Your task to perform on an android device: change keyboard looks Image 0: 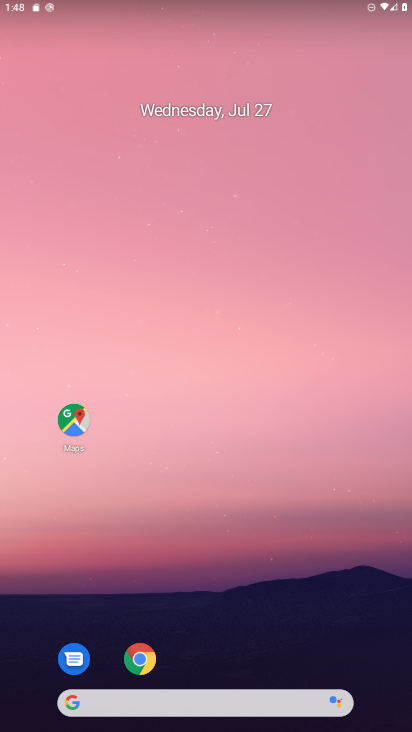
Step 0: drag from (314, 636) to (301, 84)
Your task to perform on an android device: change keyboard looks Image 1: 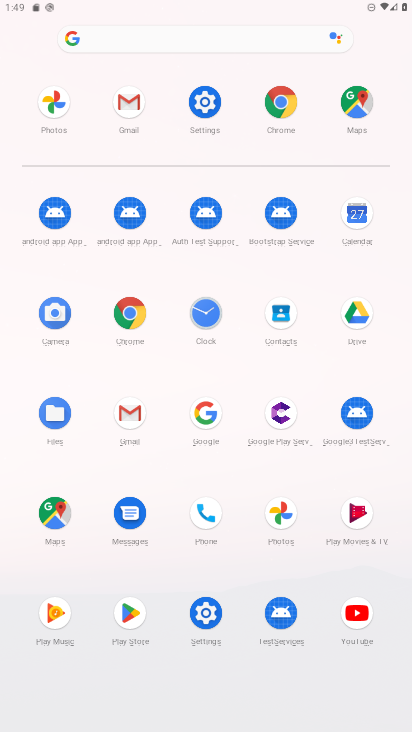
Step 1: click (214, 95)
Your task to perform on an android device: change keyboard looks Image 2: 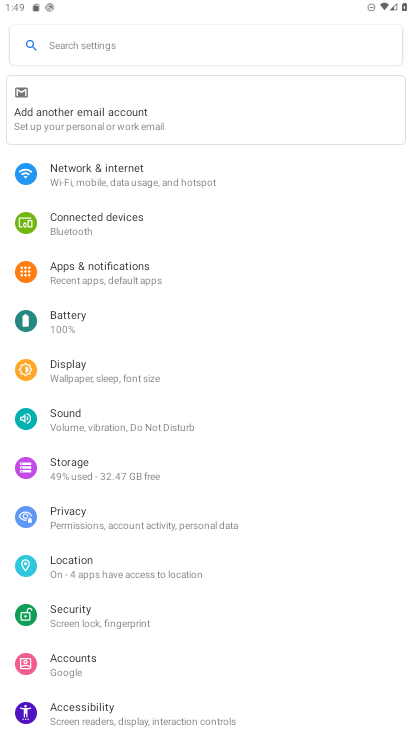
Step 2: drag from (175, 680) to (209, 216)
Your task to perform on an android device: change keyboard looks Image 3: 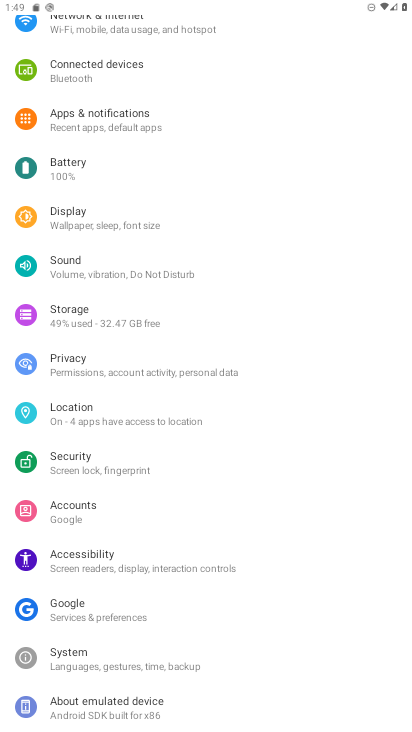
Step 3: click (74, 649)
Your task to perform on an android device: change keyboard looks Image 4: 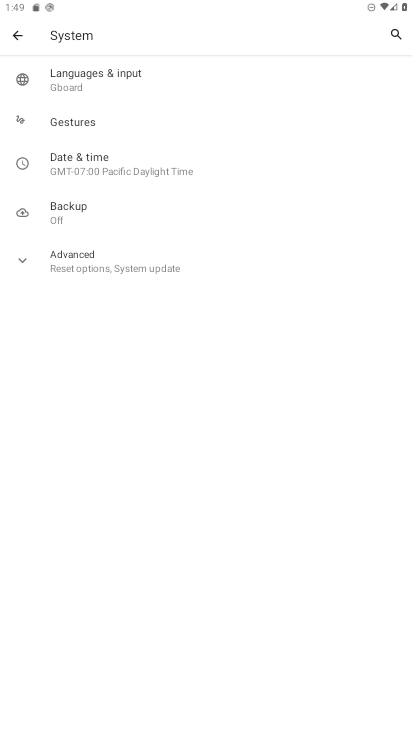
Step 4: click (109, 72)
Your task to perform on an android device: change keyboard looks Image 5: 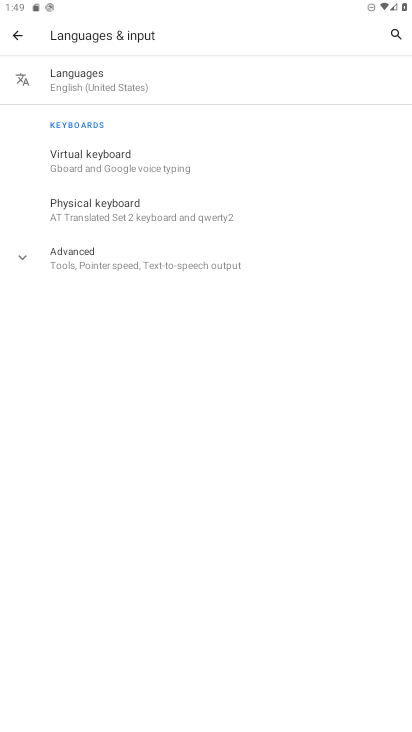
Step 5: click (74, 159)
Your task to perform on an android device: change keyboard looks Image 6: 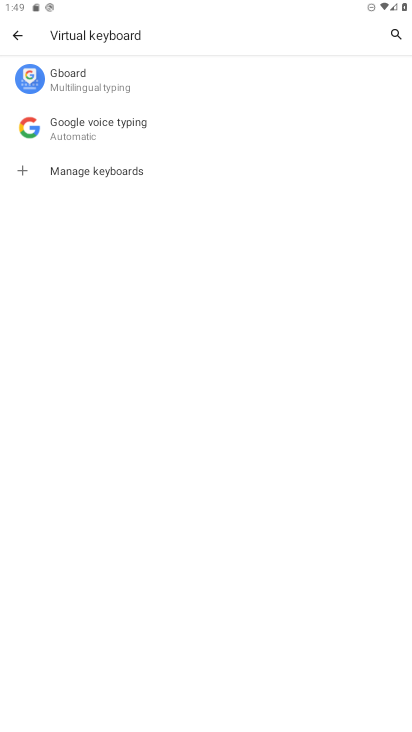
Step 6: click (93, 72)
Your task to perform on an android device: change keyboard looks Image 7: 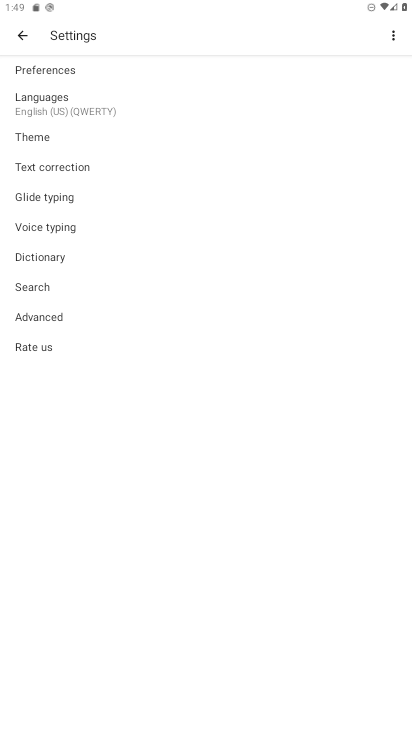
Step 7: click (49, 136)
Your task to perform on an android device: change keyboard looks Image 8: 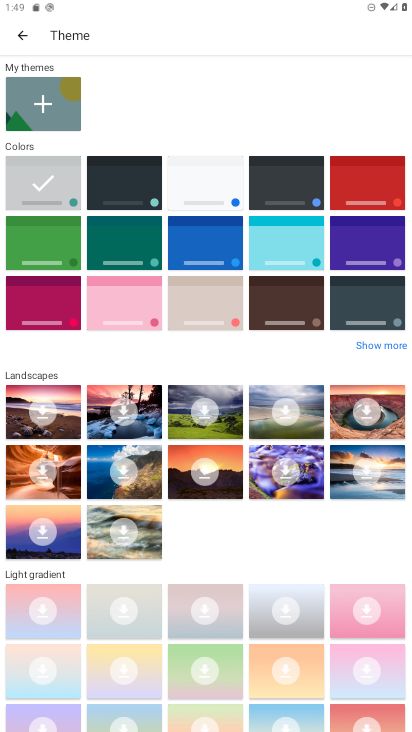
Step 8: click (180, 158)
Your task to perform on an android device: change keyboard looks Image 9: 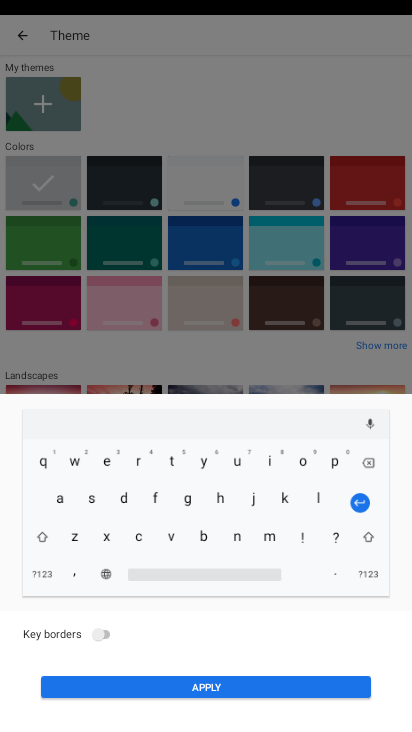
Step 9: click (225, 692)
Your task to perform on an android device: change keyboard looks Image 10: 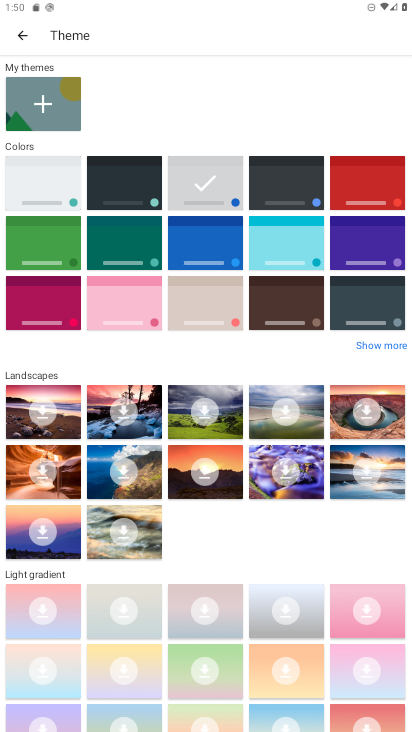
Step 10: task complete